Your task to perform on an android device: Open my contact list Image 0: 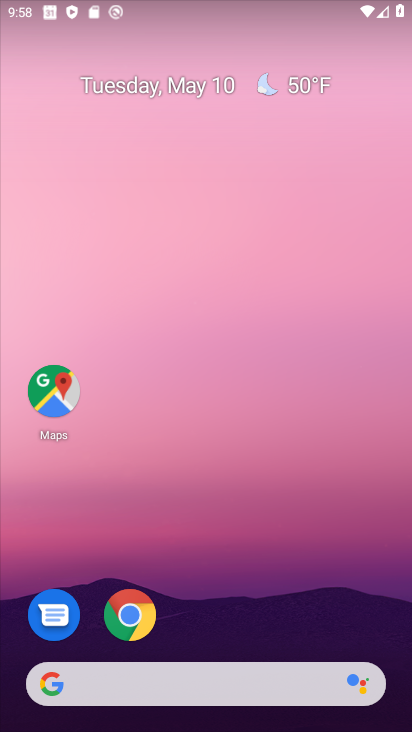
Step 0: drag from (212, 640) to (231, 64)
Your task to perform on an android device: Open my contact list Image 1: 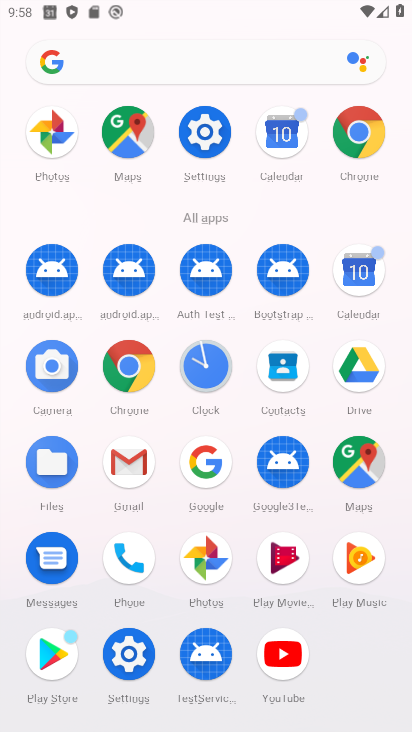
Step 1: click (281, 360)
Your task to perform on an android device: Open my contact list Image 2: 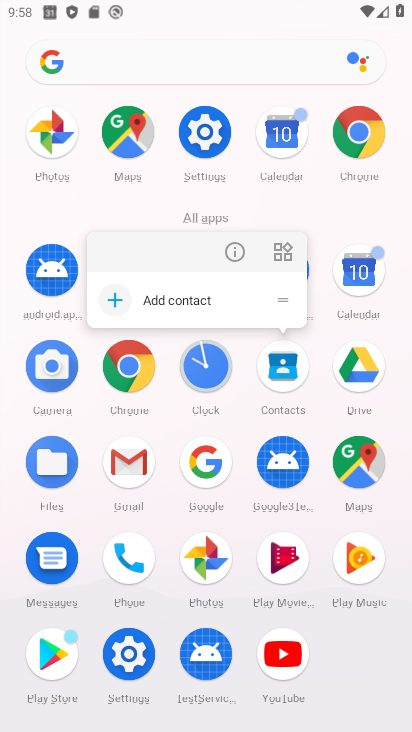
Step 2: click (281, 360)
Your task to perform on an android device: Open my contact list Image 3: 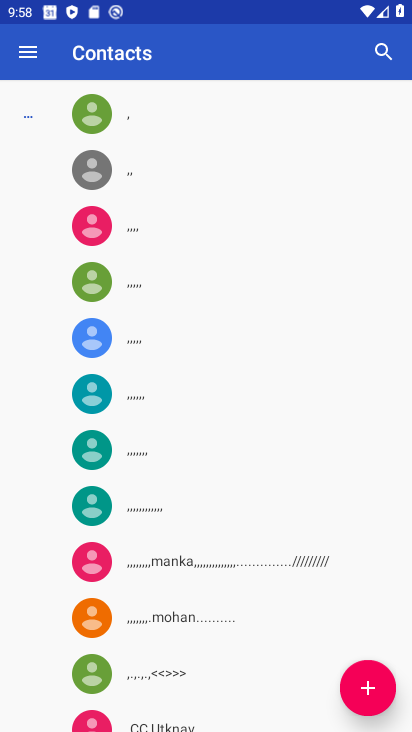
Step 3: task complete